Your task to perform on an android device: Show me popular videos on Youtube Image 0: 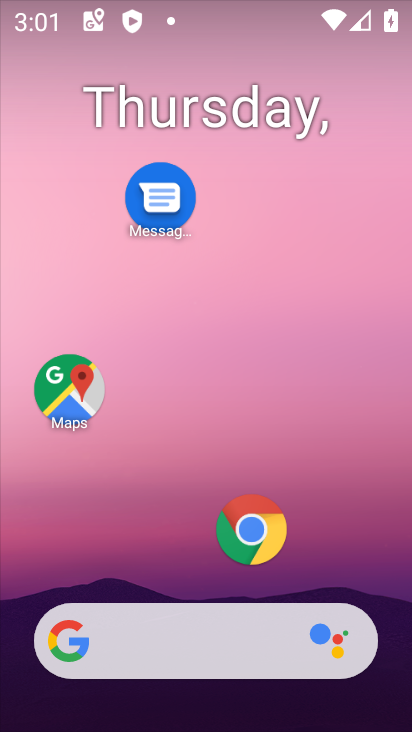
Step 0: drag from (187, 544) to (262, 217)
Your task to perform on an android device: Show me popular videos on Youtube Image 1: 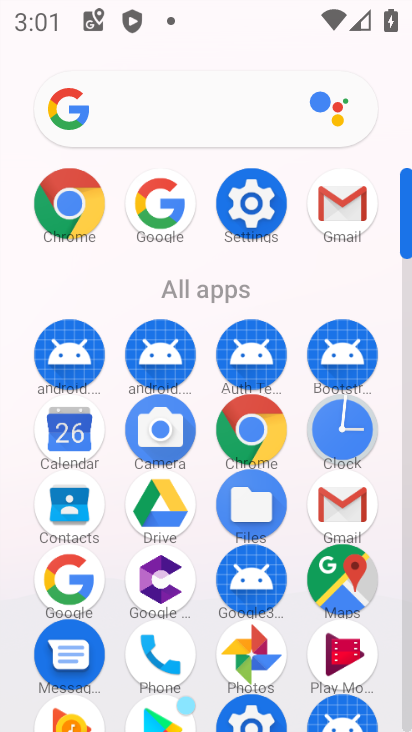
Step 1: drag from (211, 562) to (270, 275)
Your task to perform on an android device: Show me popular videos on Youtube Image 2: 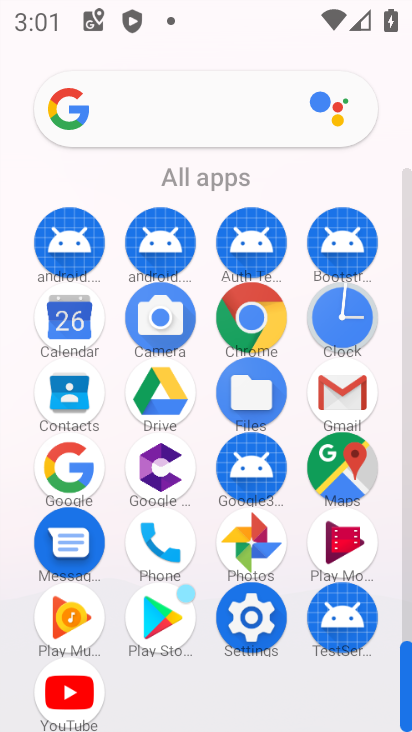
Step 2: click (66, 696)
Your task to perform on an android device: Show me popular videos on Youtube Image 3: 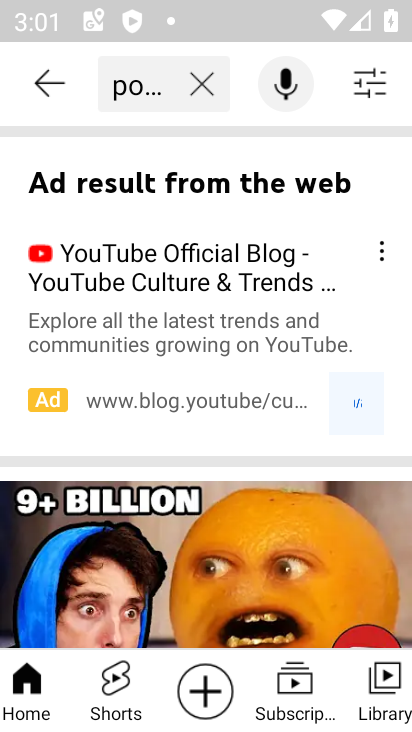
Step 3: click (192, 86)
Your task to perform on an android device: Show me popular videos on Youtube Image 4: 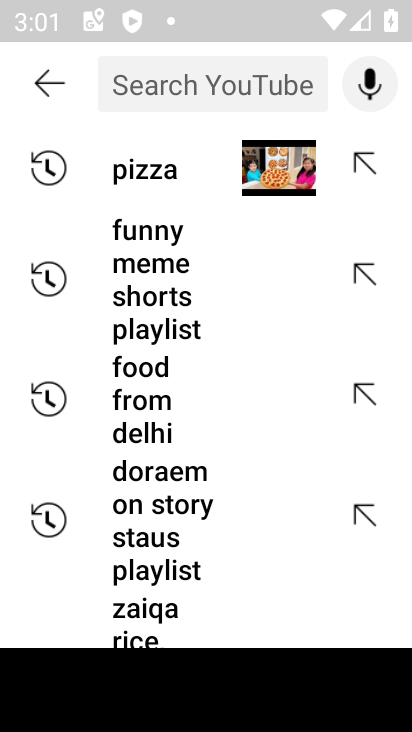
Step 4: type " popular videos"
Your task to perform on an android device: Show me popular videos on Youtube Image 5: 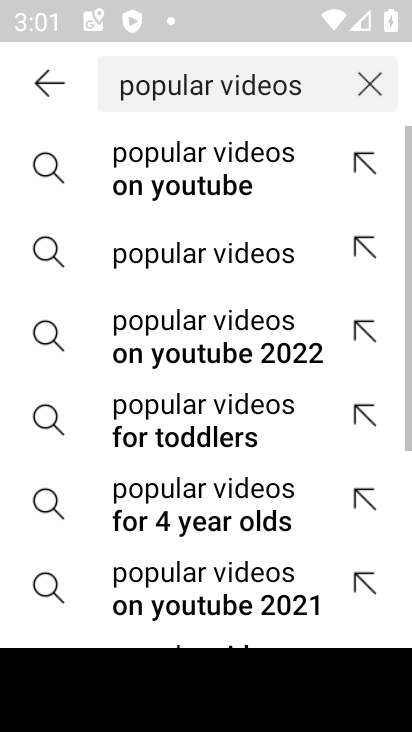
Step 5: click (218, 177)
Your task to perform on an android device: Show me popular videos on Youtube Image 6: 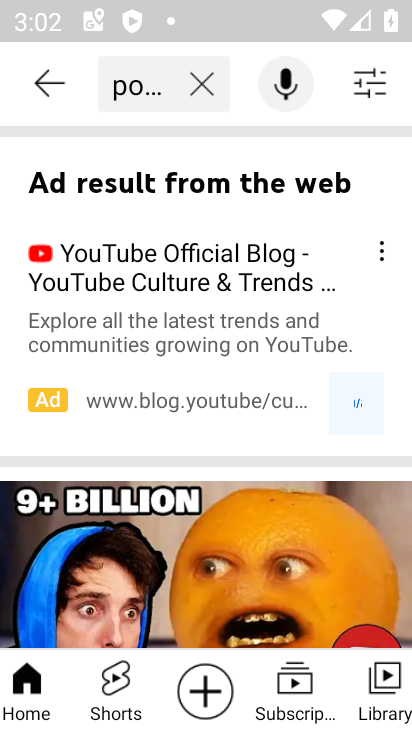
Step 6: task complete